Your task to perform on an android device: turn on improve location accuracy Image 0: 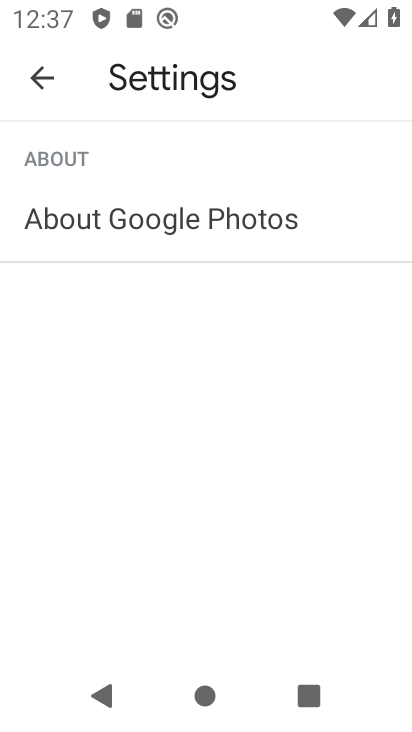
Step 0: press home button
Your task to perform on an android device: turn on improve location accuracy Image 1: 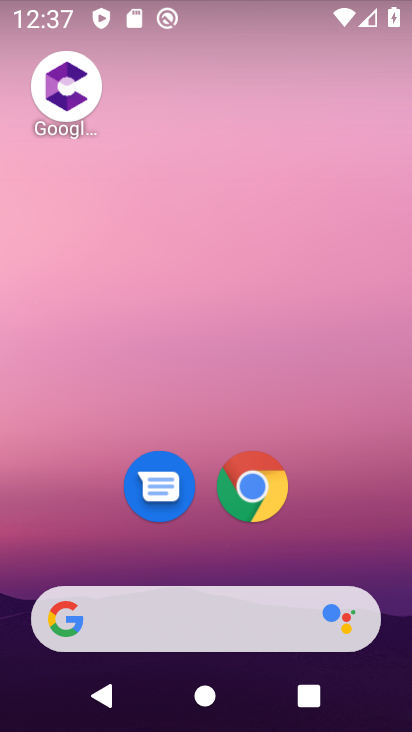
Step 1: drag from (383, 526) to (333, 18)
Your task to perform on an android device: turn on improve location accuracy Image 2: 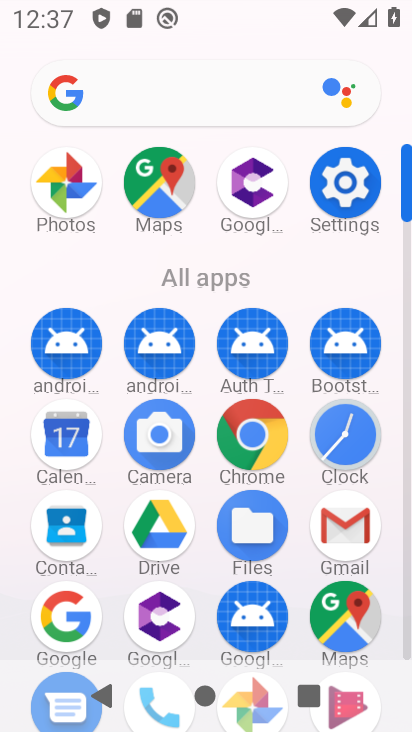
Step 2: click (348, 203)
Your task to perform on an android device: turn on improve location accuracy Image 3: 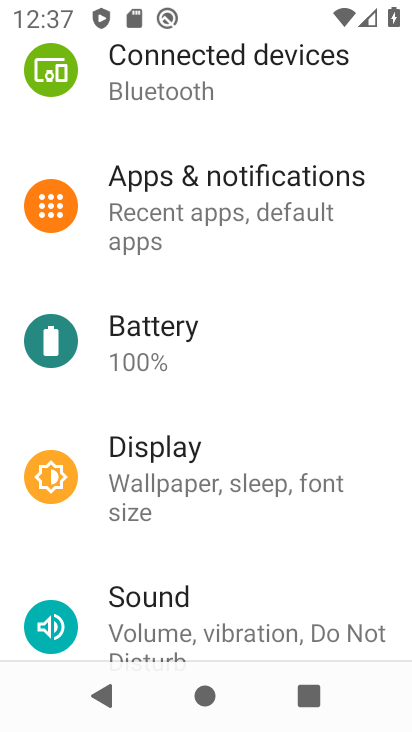
Step 3: drag from (290, 560) to (322, 218)
Your task to perform on an android device: turn on improve location accuracy Image 4: 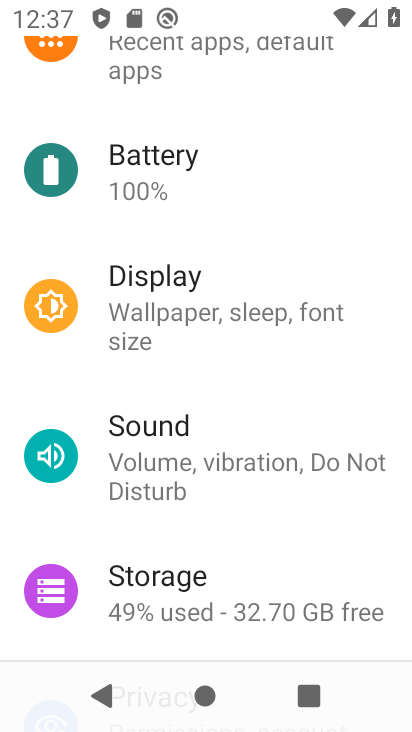
Step 4: drag from (300, 607) to (271, 131)
Your task to perform on an android device: turn on improve location accuracy Image 5: 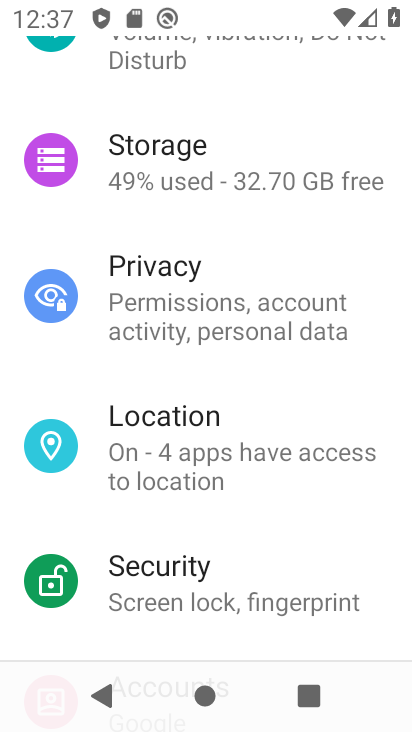
Step 5: click (335, 435)
Your task to perform on an android device: turn on improve location accuracy Image 6: 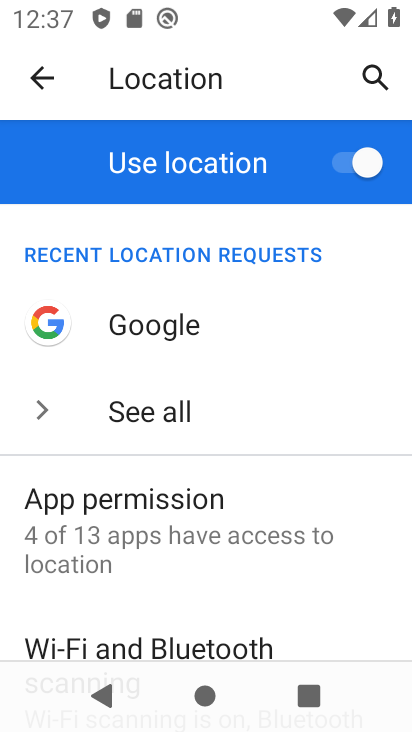
Step 6: drag from (372, 587) to (286, 34)
Your task to perform on an android device: turn on improve location accuracy Image 7: 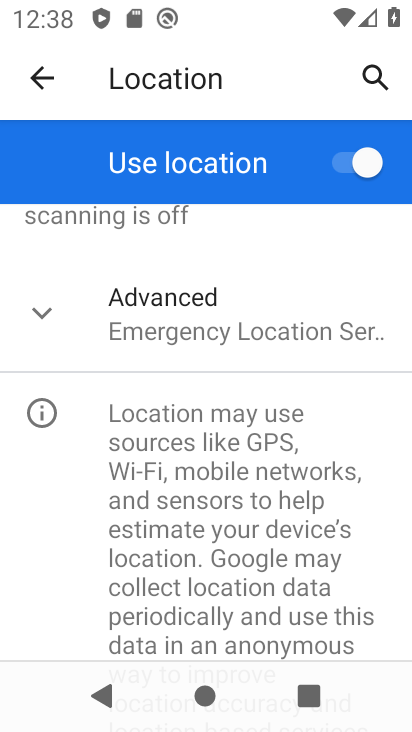
Step 7: click (297, 346)
Your task to perform on an android device: turn on improve location accuracy Image 8: 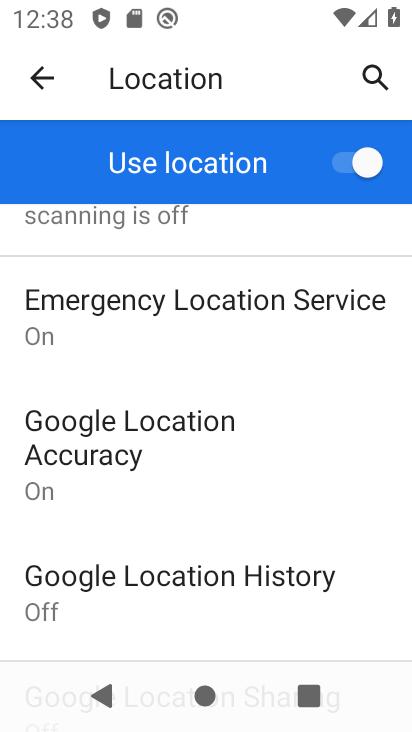
Step 8: click (310, 456)
Your task to perform on an android device: turn on improve location accuracy Image 9: 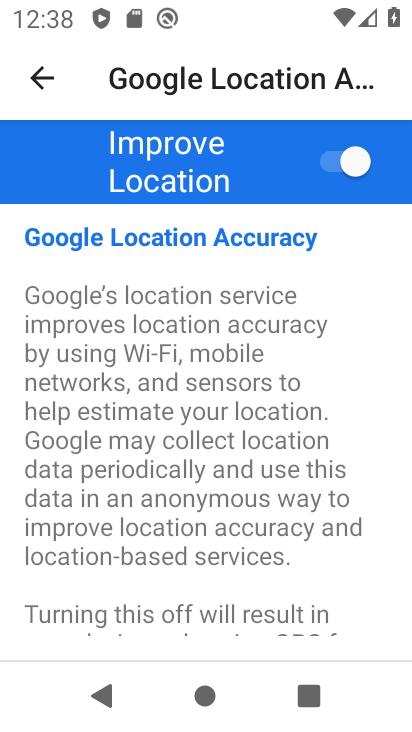
Step 9: task complete